Your task to perform on an android device: change text size in settings app Image 0: 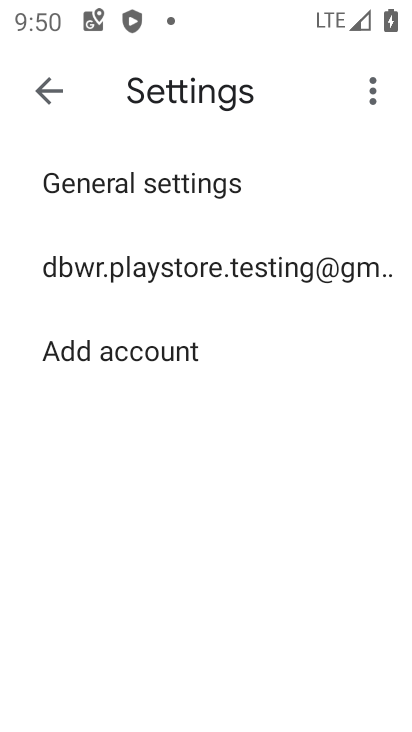
Step 0: task complete